Your task to perform on an android device: uninstall "ColorNote Notepad Notes" Image 0: 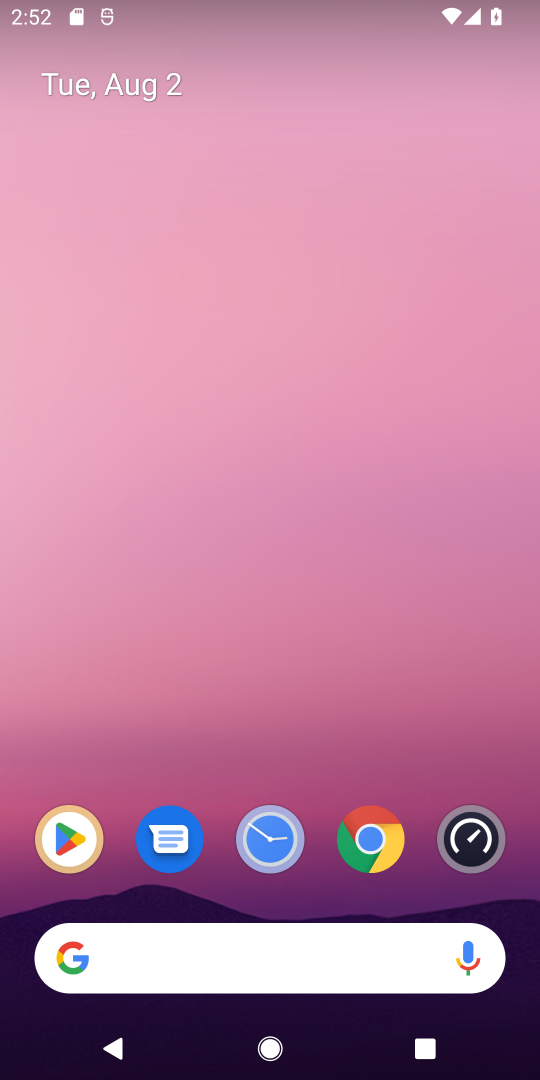
Step 0: click (71, 840)
Your task to perform on an android device: uninstall "ColorNote Notepad Notes" Image 1: 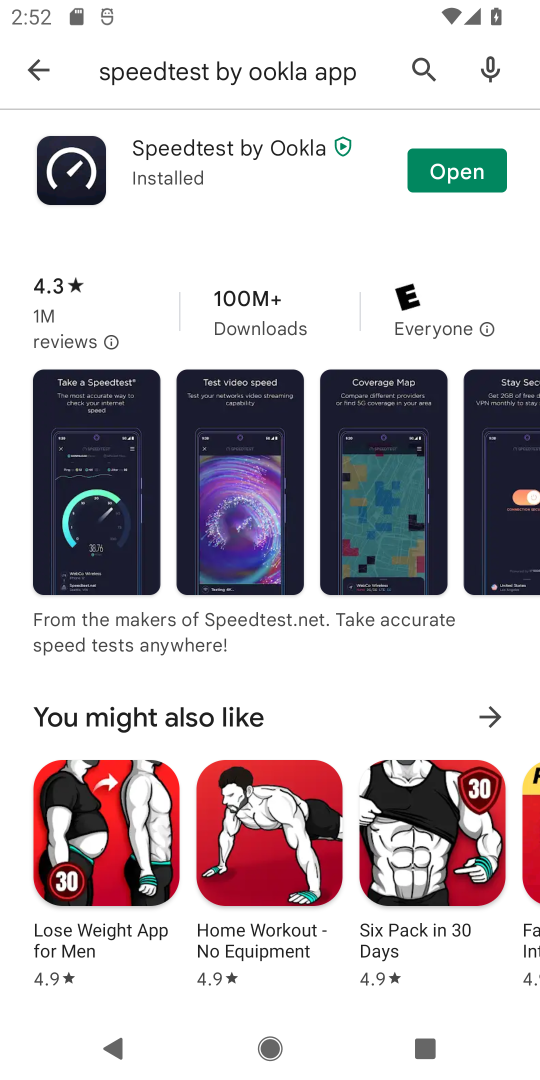
Step 1: click (422, 89)
Your task to perform on an android device: uninstall "ColorNote Notepad Notes" Image 2: 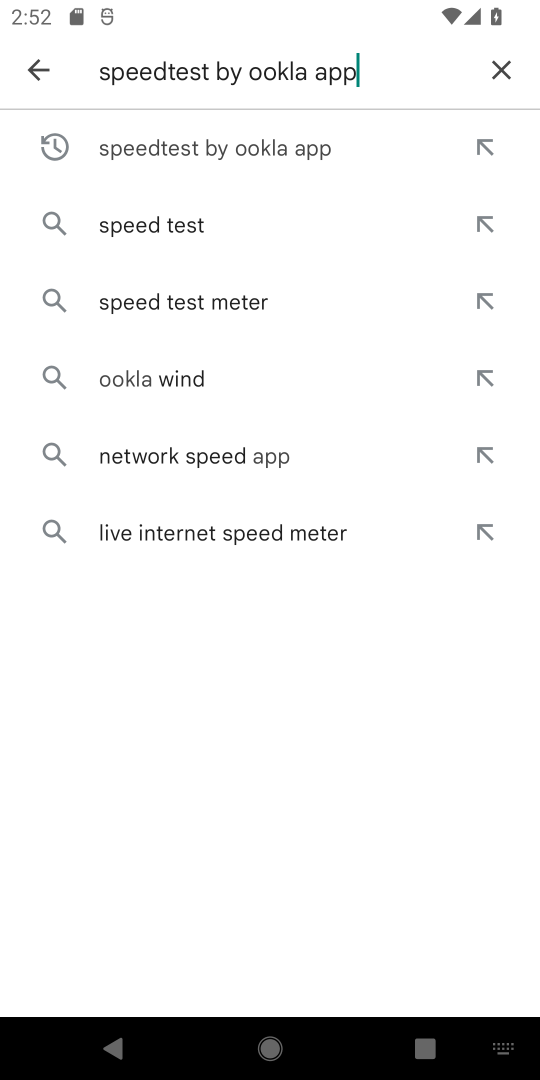
Step 2: click (493, 79)
Your task to perform on an android device: uninstall "ColorNote Notepad Notes" Image 3: 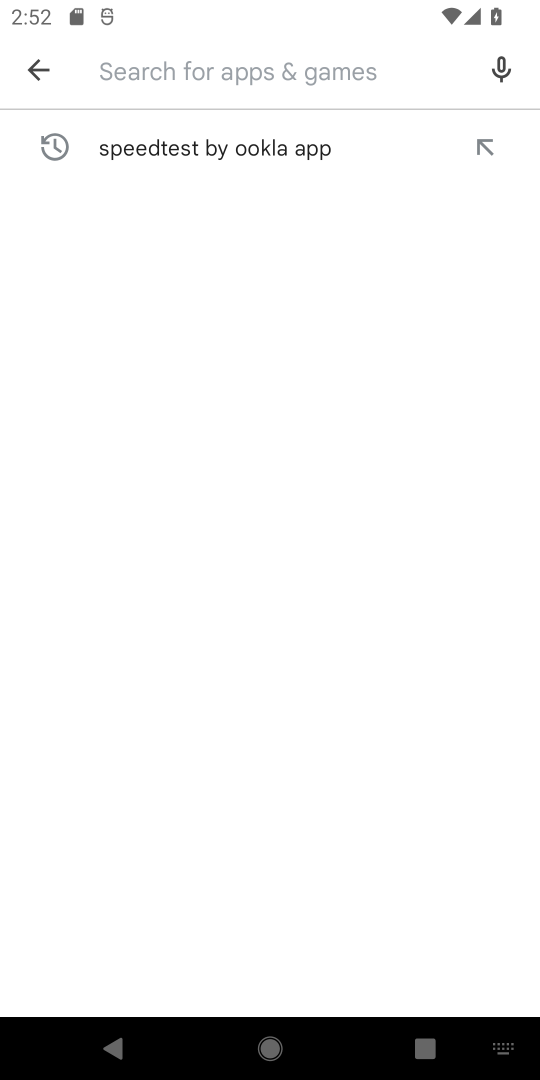
Step 3: type "colornotepad"
Your task to perform on an android device: uninstall "ColorNote Notepad Notes" Image 4: 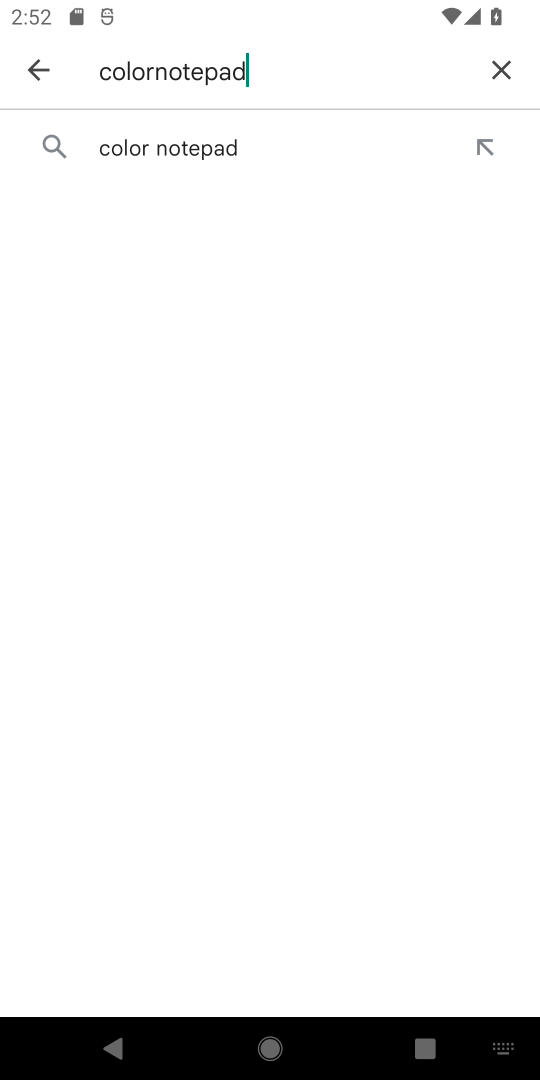
Step 4: click (142, 149)
Your task to perform on an android device: uninstall "ColorNote Notepad Notes" Image 5: 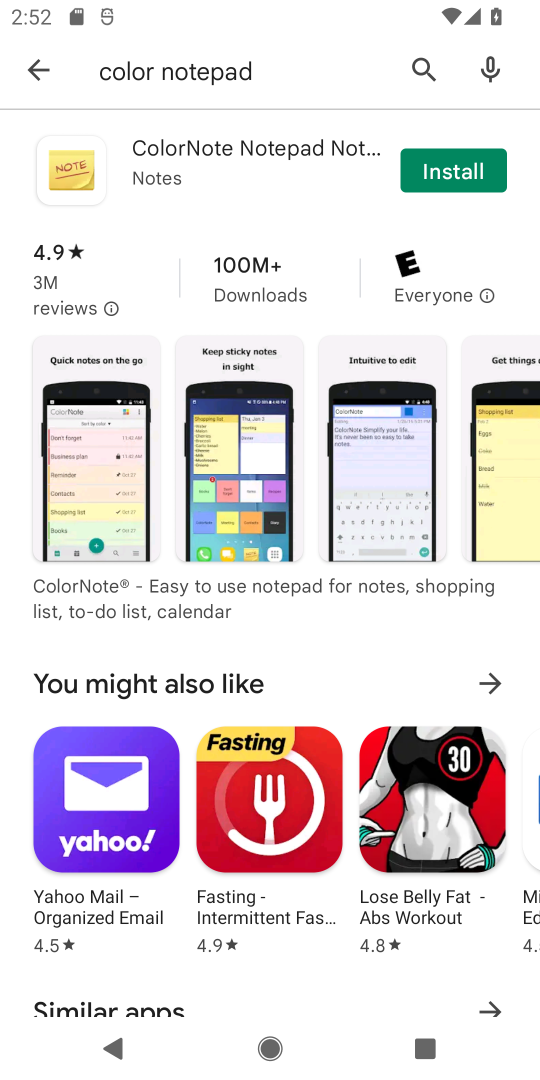
Step 5: click (461, 178)
Your task to perform on an android device: uninstall "ColorNote Notepad Notes" Image 6: 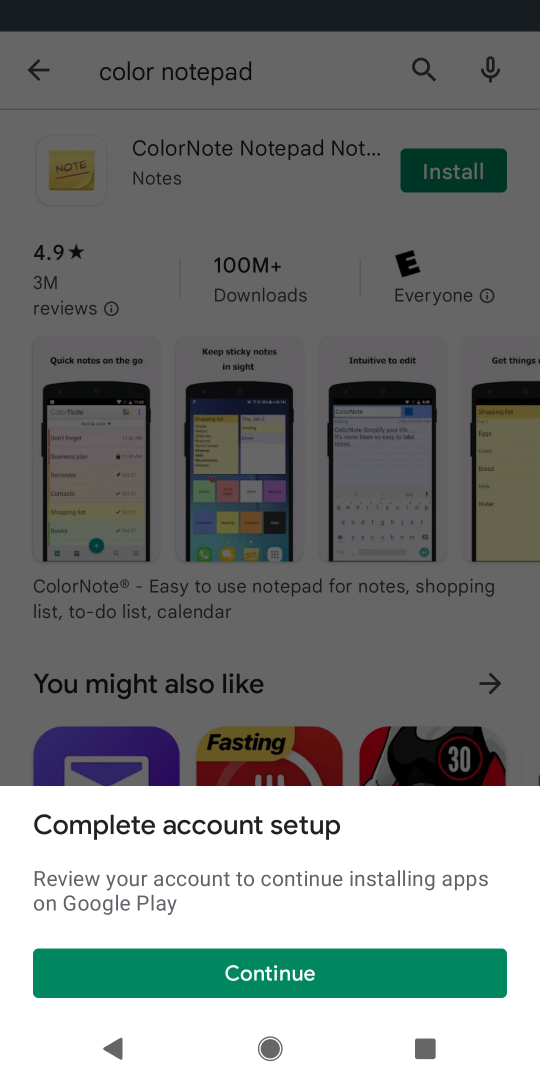
Step 6: click (380, 963)
Your task to perform on an android device: uninstall "ColorNote Notepad Notes" Image 7: 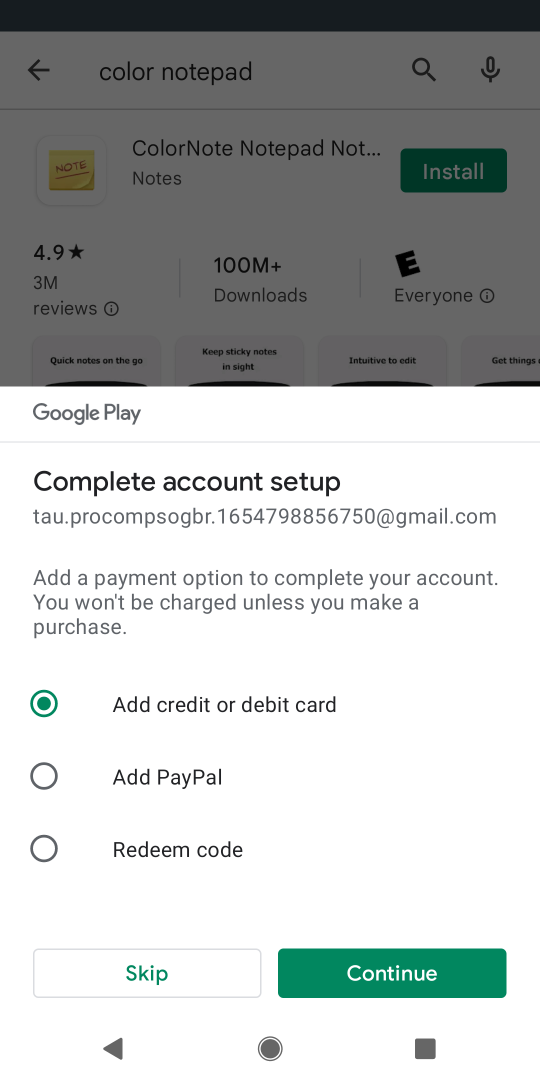
Step 7: click (179, 957)
Your task to perform on an android device: uninstall "ColorNote Notepad Notes" Image 8: 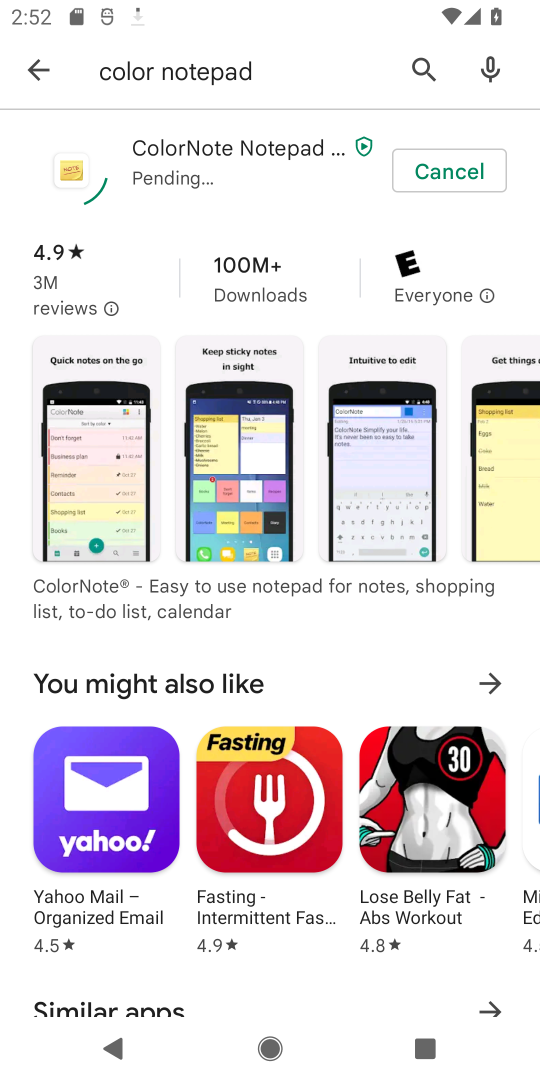
Step 8: task complete